Your task to perform on an android device: toggle notification dots Image 0: 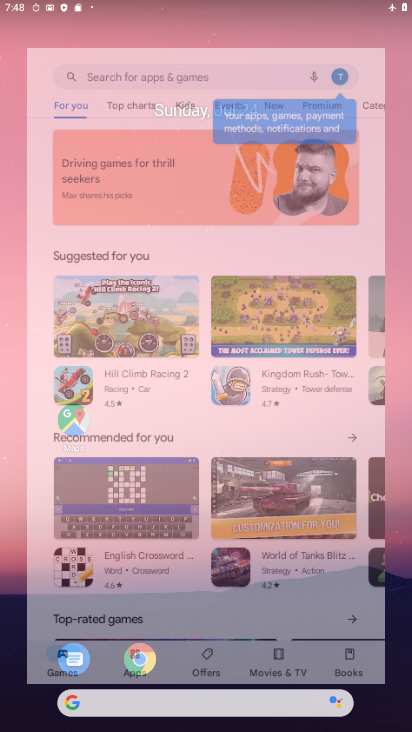
Step 0: drag from (266, 687) to (254, 279)
Your task to perform on an android device: toggle notification dots Image 1: 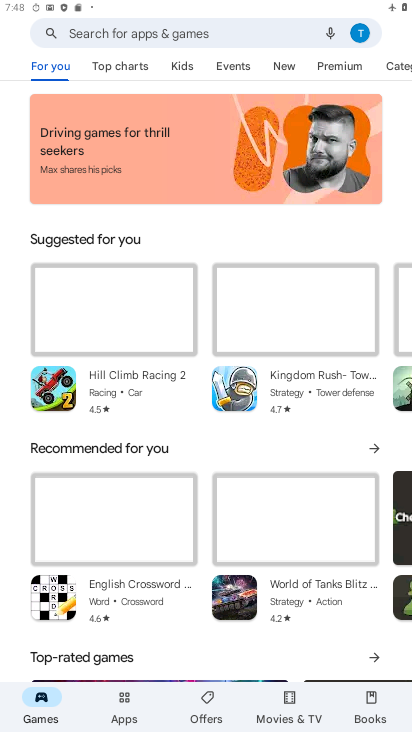
Step 1: press back button
Your task to perform on an android device: toggle notification dots Image 2: 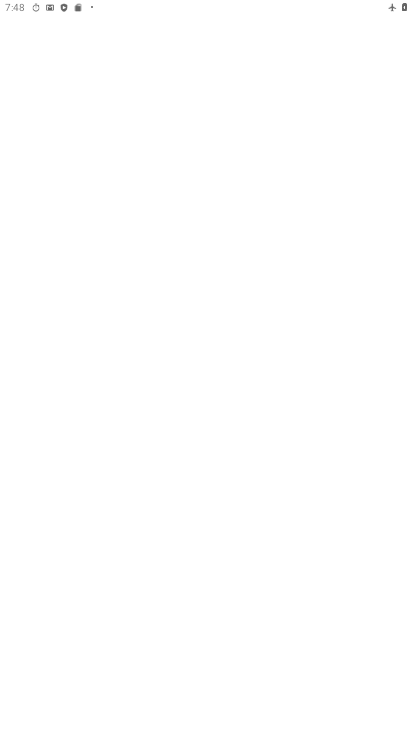
Step 2: press back button
Your task to perform on an android device: toggle notification dots Image 3: 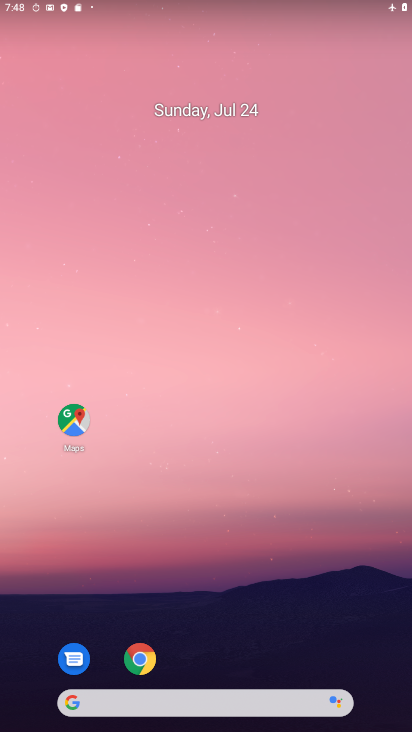
Step 3: click (167, 199)
Your task to perform on an android device: toggle notification dots Image 4: 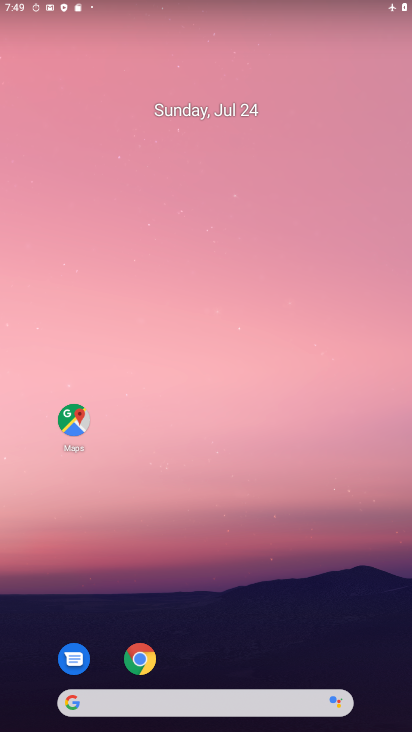
Step 4: drag from (320, 575) to (271, 22)
Your task to perform on an android device: toggle notification dots Image 5: 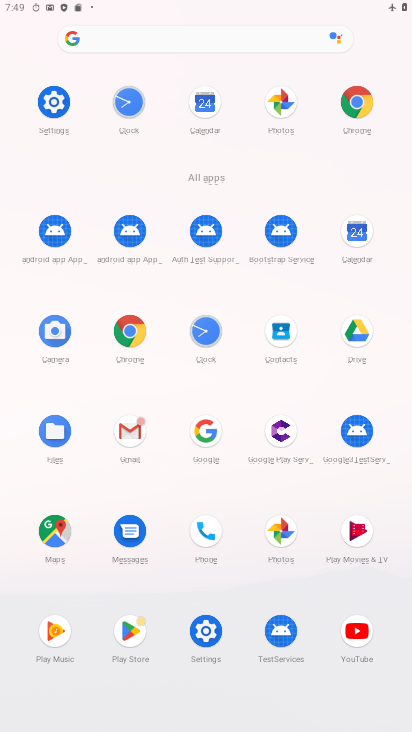
Step 5: drag from (157, 336) to (157, 84)
Your task to perform on an android device: toggle notification dots Image 6: 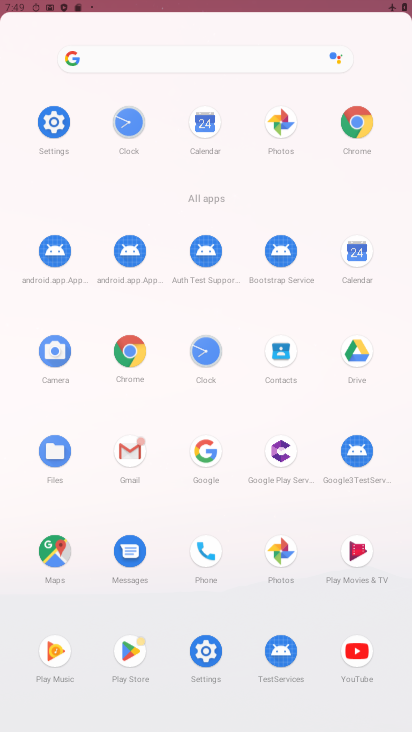
Step 6: drag from (178, 582) to (310, 105)
Your task to perform on an android device: toggle notification dots Image 7: 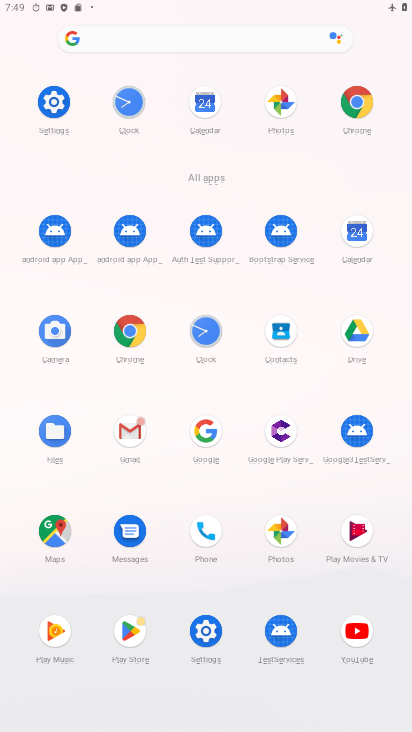
Step 7: click (57, 109)
Your task to perform on an android device: toggle notification dots Image 8: 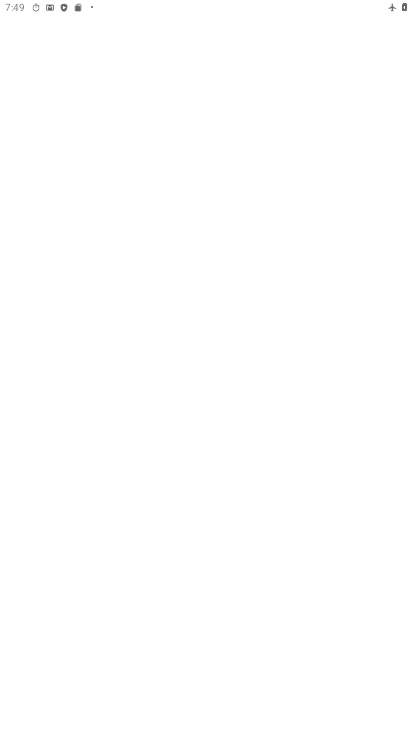
Step 8: click (53, 111)
Your task to perform on an android device: toggle notification dots Image 9: 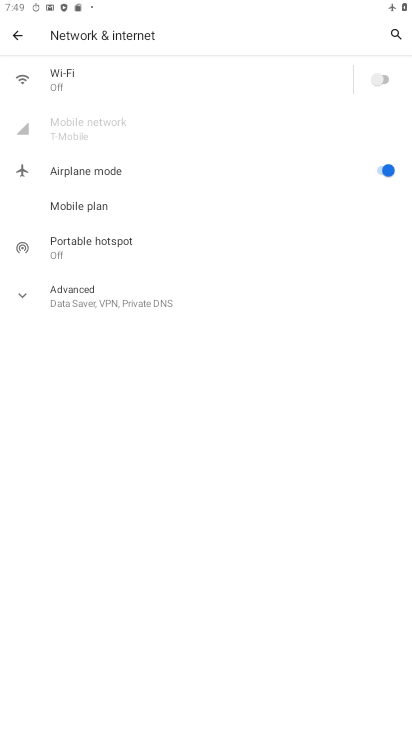
Step 9: click (17, 40)
Your task to perform on an android device: toggle notification dots Image 10: 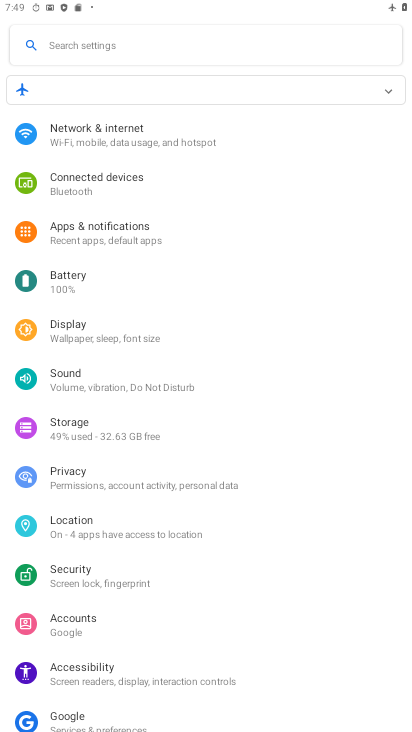
Step 10: drag from (104, 669) to (147, 241)
Your task to perform on an android device: toggle notification dots Image 11: 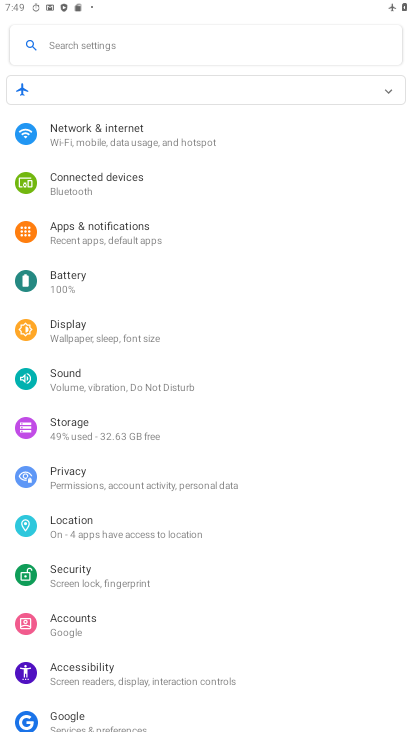
Step 11: click (108, 226)
Your task to perform on an android device: toggle notification dots Image 12: 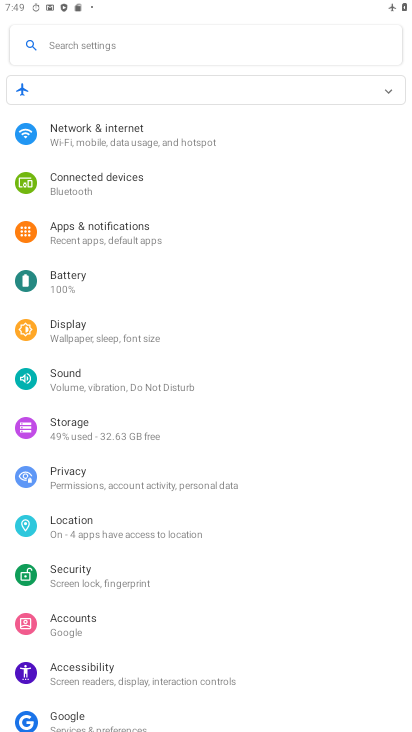
Step 12: click (111, 230)
Your task to perform on an android device: toggle notification dots Image 13: 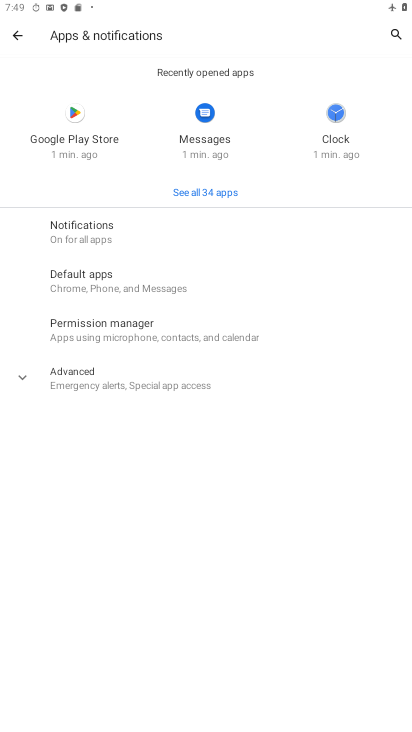
Step 13: click (67, 219)
Your task to perform on an android device: toggle notification dots Image 14: 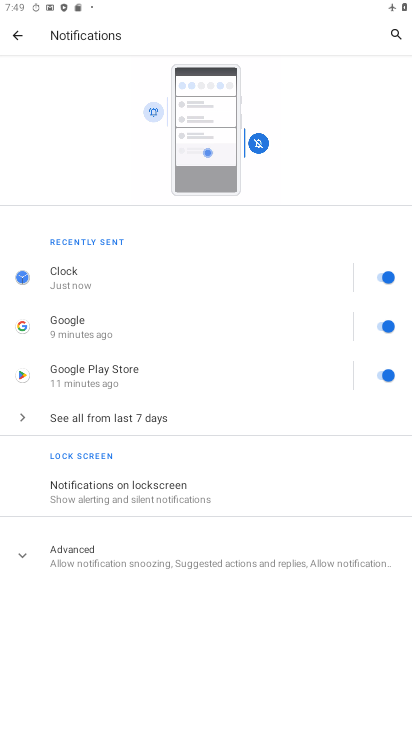
Step 14: click (63, 560)
Your task to perform on an android device: toggle notification dots Image 15: 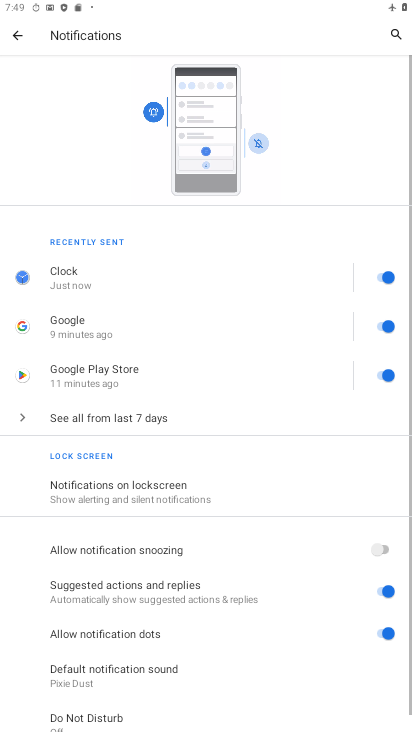
Step 15: drag from (201, 672) to (184, 536)
Your task to perform on an android device: toggle notification dots Image 16: 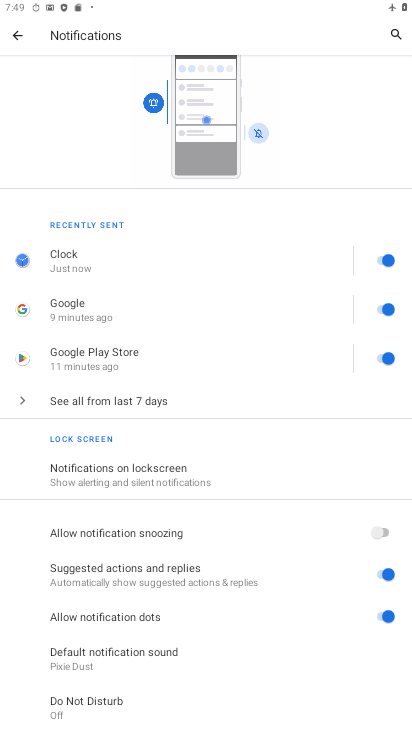
Step 16: click (388, 616)
Your task to perform on an android device: toggle notification dots Image 17: 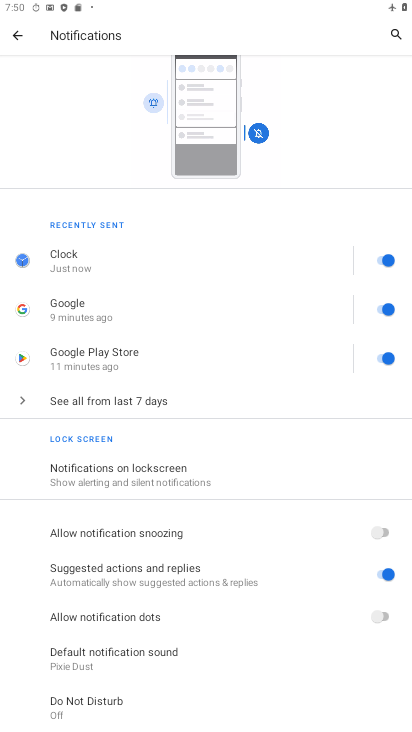
Step 17: task complete